Your task to perform on an android device: Find coffee shops on Maps Image 0: 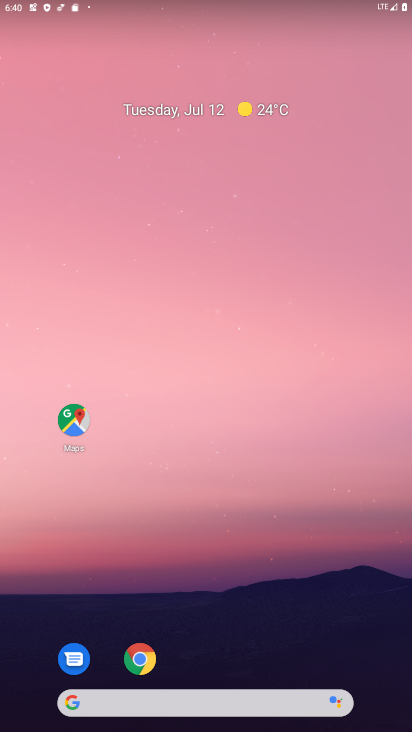
Step 0: drag from (360, 664) to (197, 24)
Your task to perform on an android device: Find coffee shops on Maps Image 1: 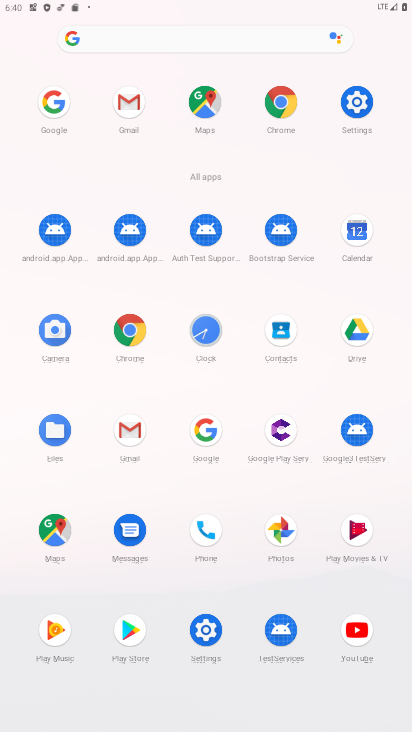
Step 1: click (57, 532)
Your task to perform on an android device: Find coffee shops on Maps Image 2: 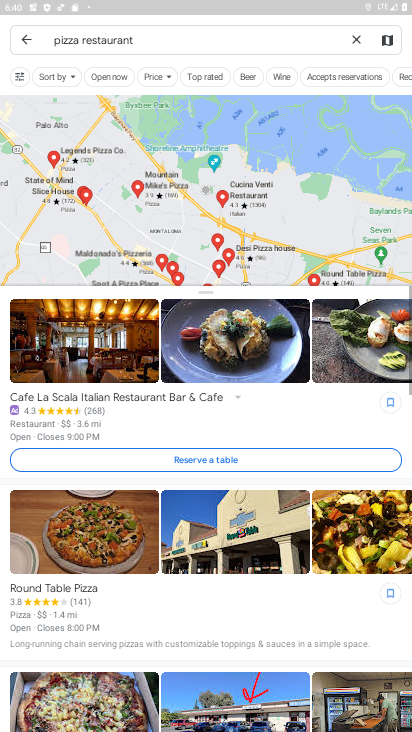
Step 2: click (353, 31)
Your task to perform on an android device: Find coffee shops on Maps Image 3: 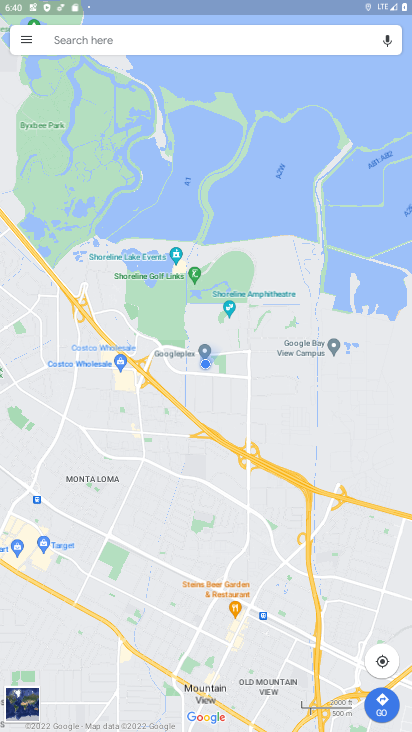
Step 3: click (91, 36)
Your task to perform on an android device: Find coffee shops on Maps Image 4: 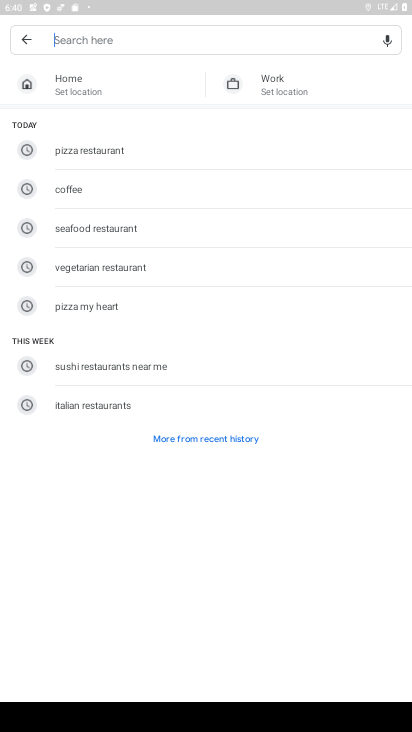
Step 4: type "coffee shops"
Your task to perform on an android device: Find coffee shops on Maps Image 5: 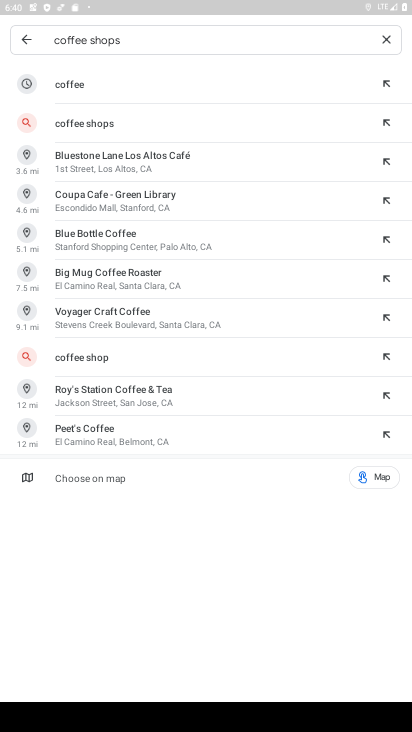
Step 5: click (74, 120)
Your task to perform on an android device: Find coffee shops on Maps Image 6: 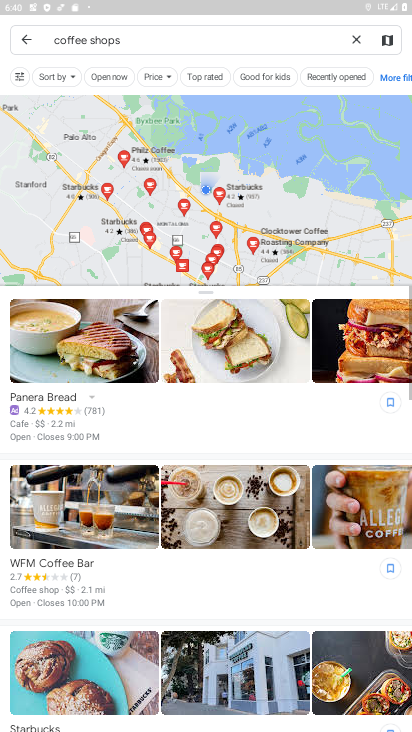
Step 6: task complete